Your task to perform on an android device: What is the news today? Image 0: 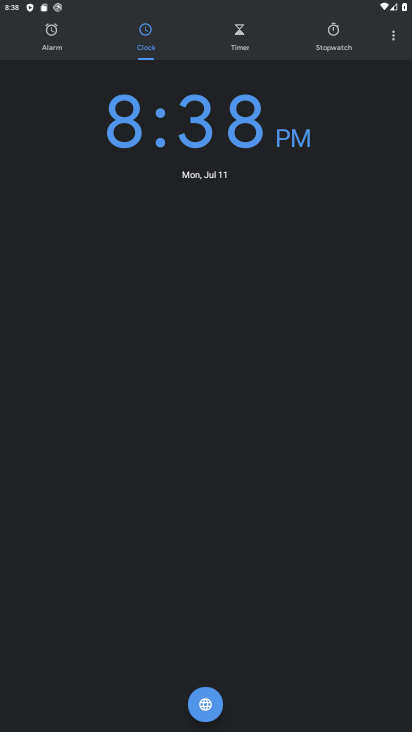
Step 0: press home button
Your task to perform on an android device: What is the news today? Image 1: 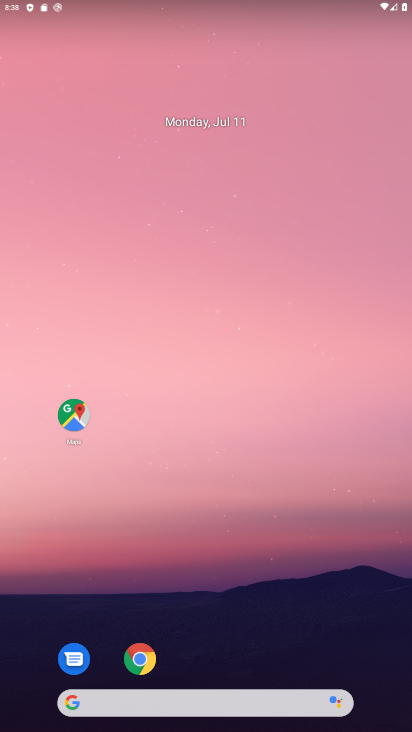
Step 1: click (115, 676)
Your task to perform on an android device: What is the news today? Image 2: 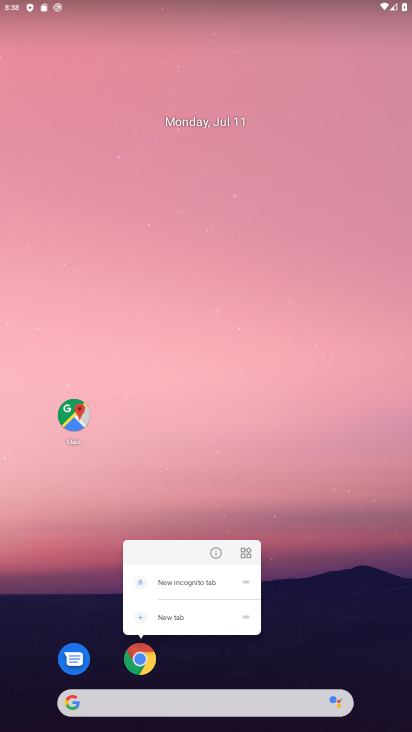
Step 2: click (100, 710)
Your task to perform on an android device: What is the news today? Image 3: 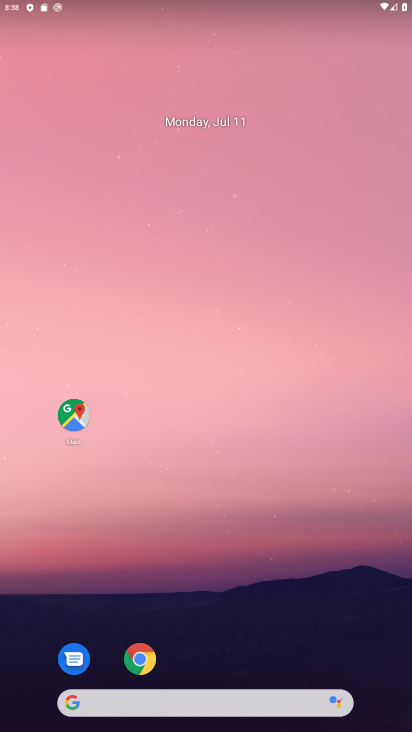
Step 3: click (108, 698)
Your task to perform on an android device: What is the news today? Image 4: 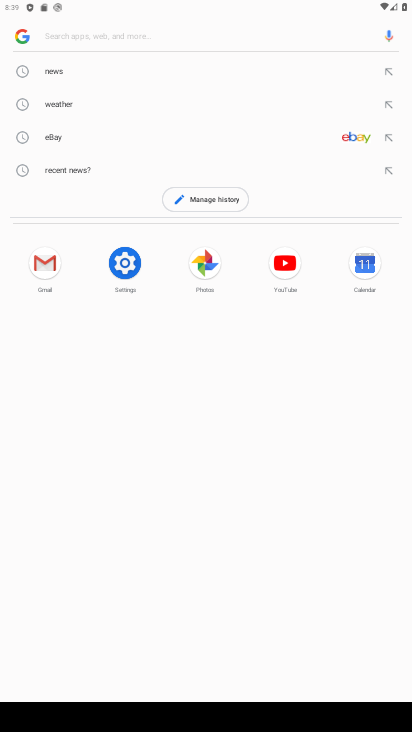
Step 4: type "What is the news today?"
Your task to perform on an android device: What is the news today? Image 5: 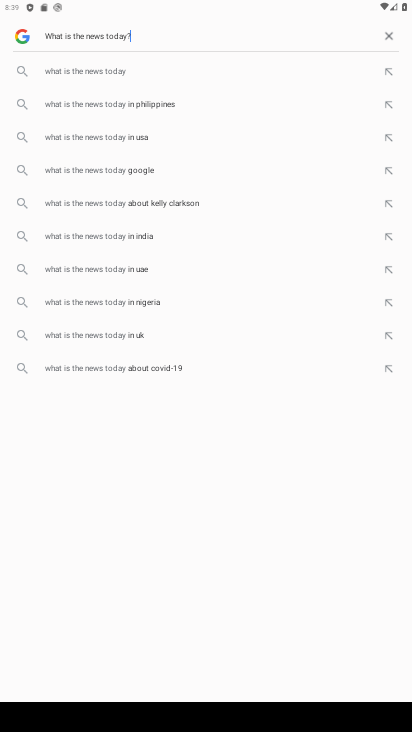
Step 5: type ""
Your task to perform on an android device: What is the news today? Image 6: 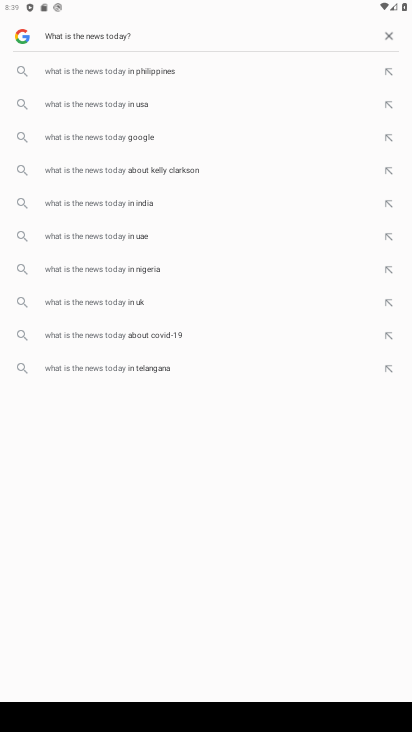
Step 6: type "  "
Your task to perform on an android device: What is the news today? Image 7: 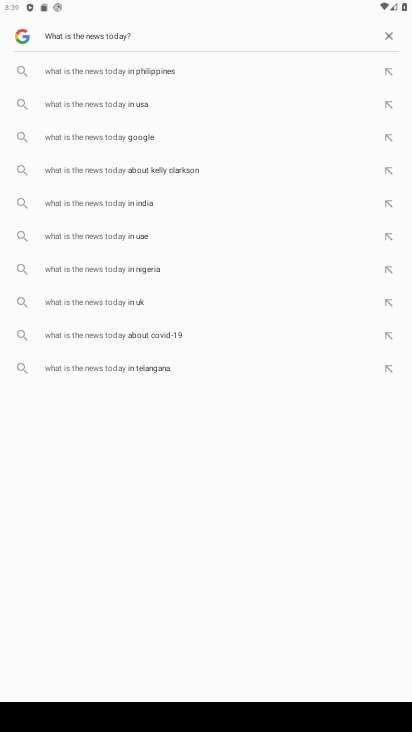
Step 7: task complete